Your task to perform on an android device: open wifi settings Image 0: 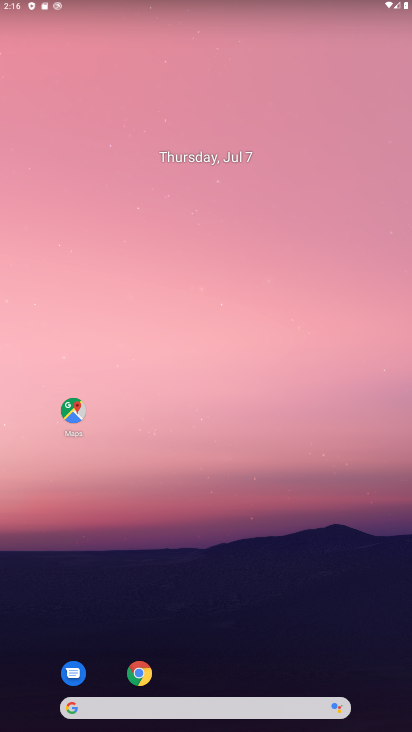
Step 0: drag from (225, 676) to (236, 145)
Your task to perform on an android device: open wifi settings Image 1: 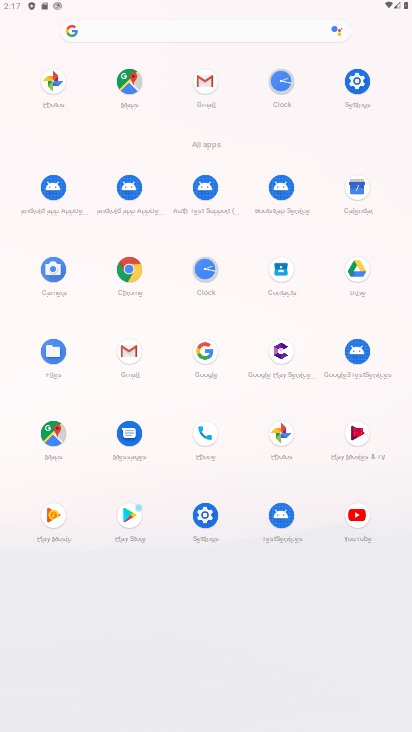
Step 1: click (206, 522)
Your task to perform on an android device: open wifi settings Image 2: 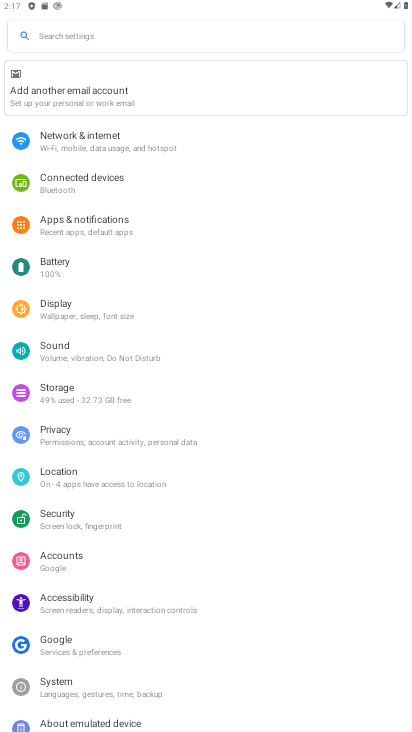
Step 2: click (91, 137)
Your task to perform on an android device: open wifi settings Image 3: 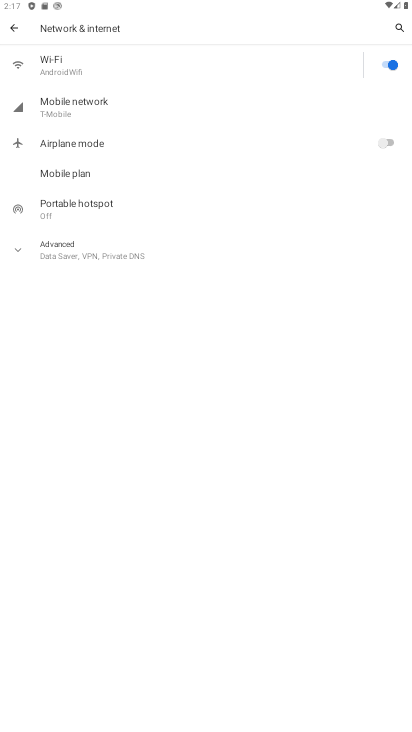
Step 3: click (49, 67)
Your task to perform on an android device: open wifi settings Image 4: 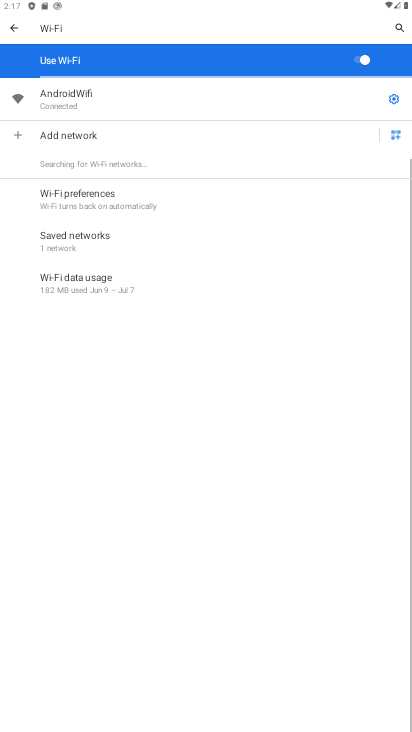
Step 4: task complete